Your task to perform on an android device: Go to accessibility settings Image 0: 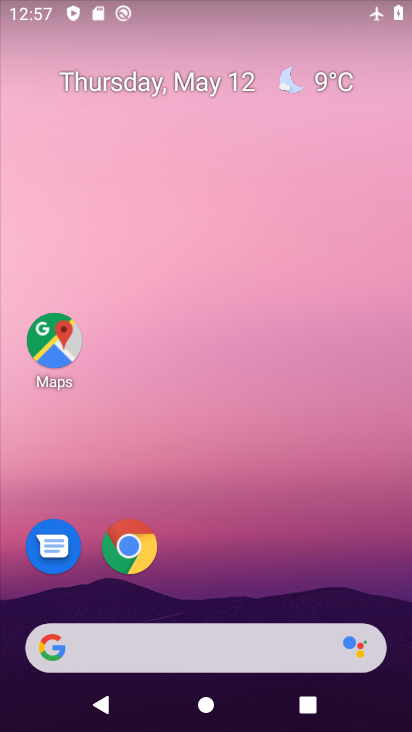
Step 0: click (282, 258)
Your task to perform on an android device: Go to accessibility settings Image 1: 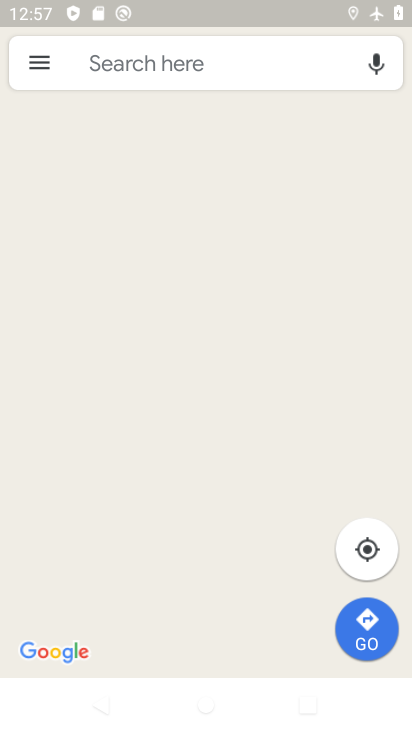
Step 1: press home button
Your task to perform on an android device: Go to accessibility settings Image 2: 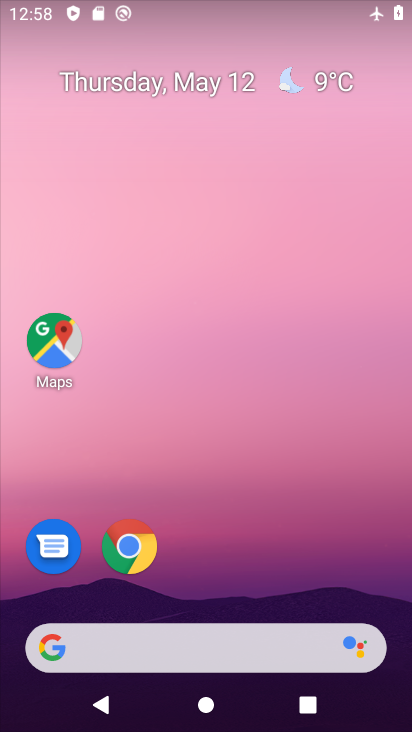
Step 2: drag from (243, 671) to (322, 322)
Your task to perform on an android device: Go to accessibility settings Image 3: 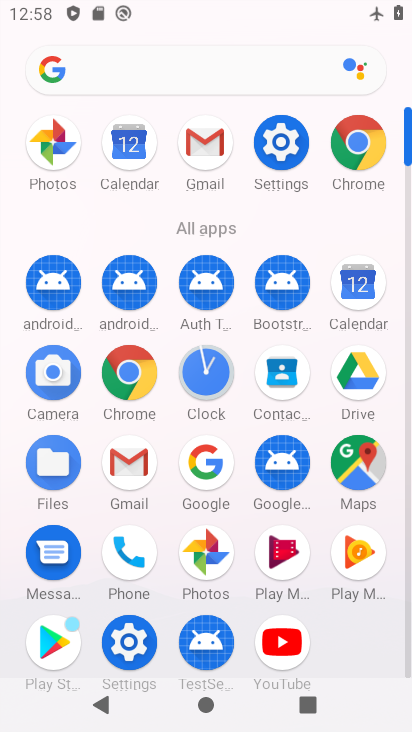
Step 3: click (271, 154)
Your task to perform on an android device: Go to accessibility settings Image 4: 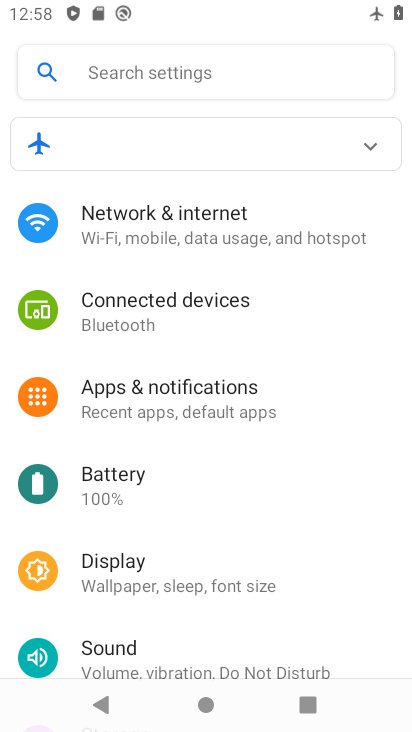
Step 4: click (140, 79)
Your task to perform on an android device: Go to accessibility settings Image 5: 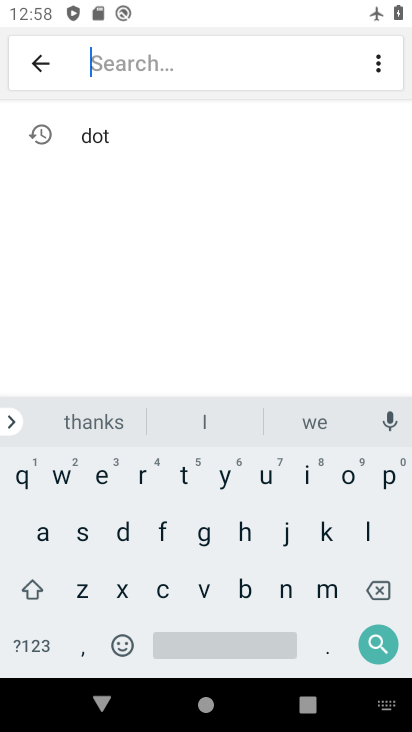
Step 5: click (34, 534)
Your task to perform on an android device: Go to accessibility settings Image 6: 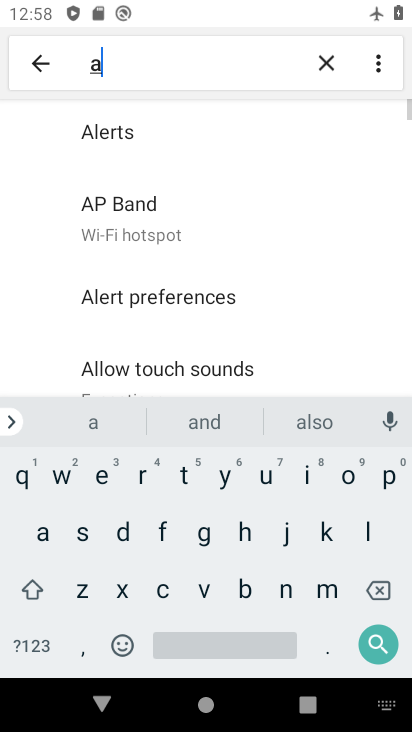
Step 6: click (163, 594)
Your task to perform on an android device: Go to accessibility settings Image 7: 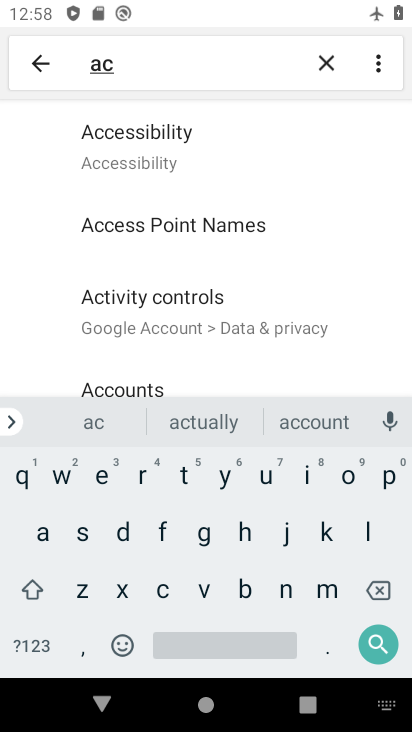
Step 7: click (196, 162)
Your task to perform on an android device: Go to accessibility settings Image 8: 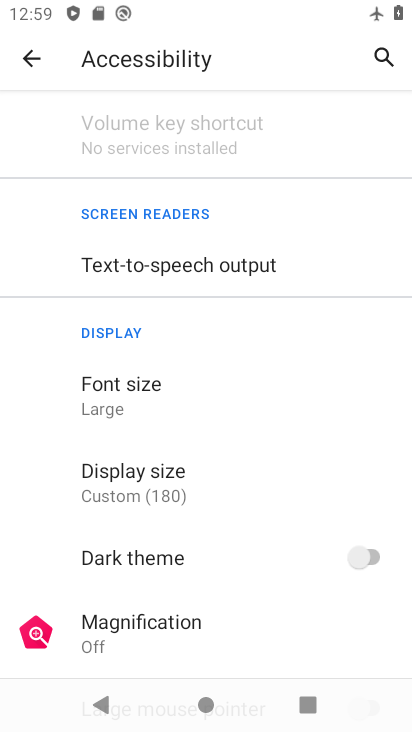
Step 8: task complete